Your task to perform on an android device: refresh tabs in the chrome app Image 0: 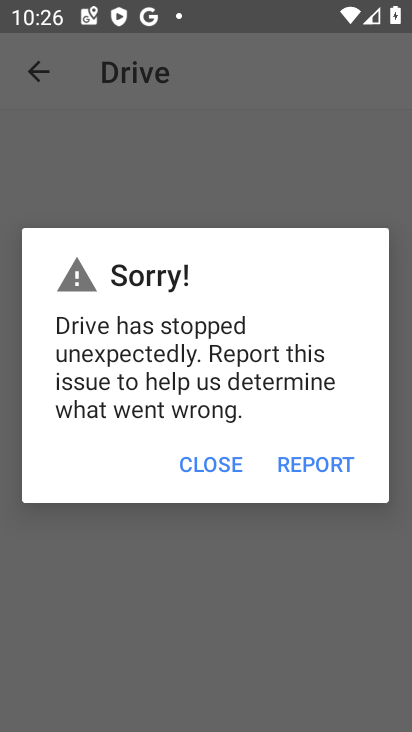
Step 0: press home button
Your task to perform on an android device: refresh tabs in the chrome app Image 1: 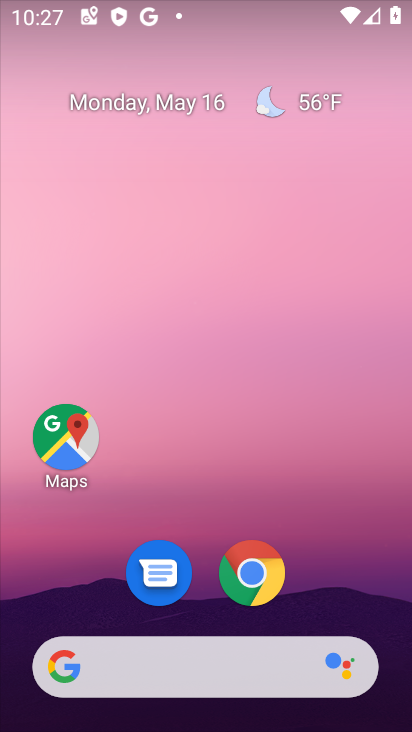
Step 1: click (264, 580)
Your task to perform on an android device: refresh tabs in the chrome app Image 2: 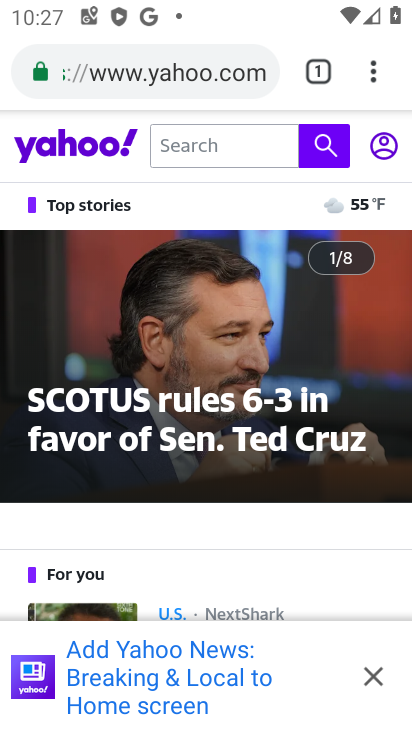
Step 2: click (379, 75)
Your task to perform on an android device: refresh tabs in the chrome app Image 3: 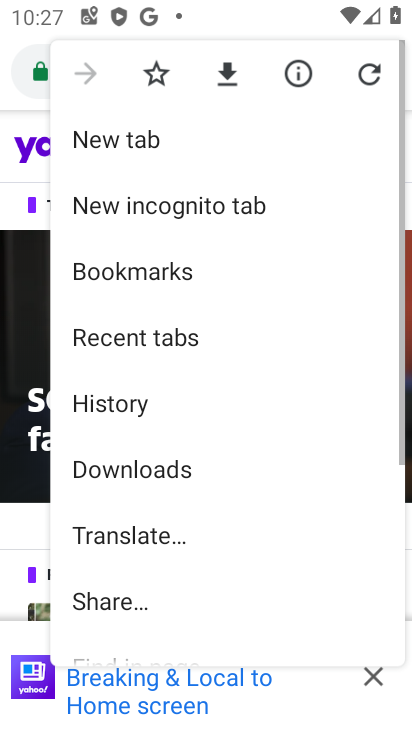
Step 3: click (374, 89)
Your task to perform on an android device: refresh tabs in the chrome app Image 4: 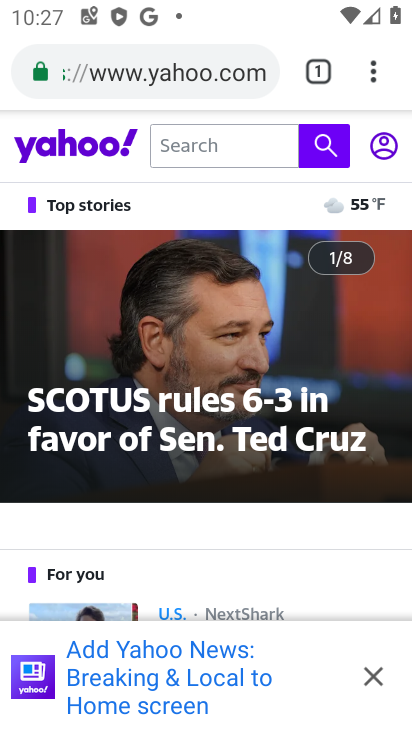
Step 4: task complete